Your task to perform on an android device: Show me productivity apps on the Play Store Image 0: 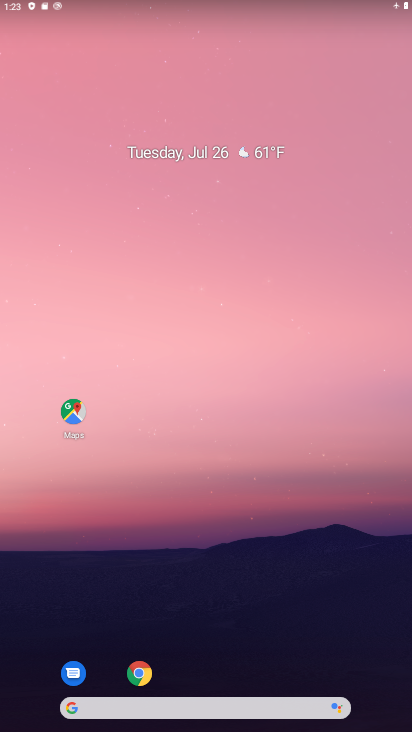
Step 0: drag from (200, 673) to (237, 396)
Your task to perform on an android device: Show me productivity apps on the Play Store Image 1: 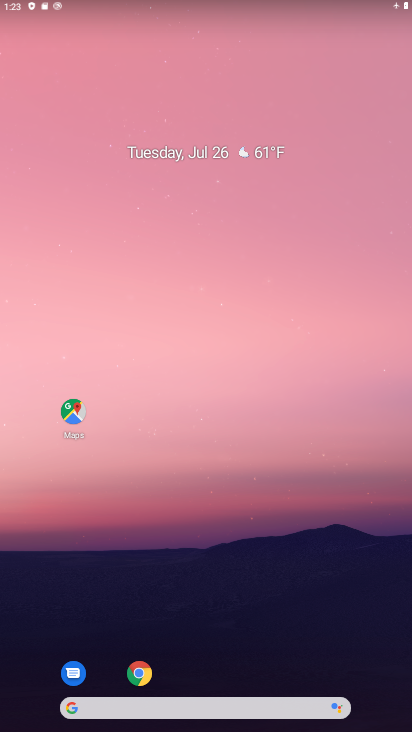
Step 1: drag from (194, 666) to (265, 322)
Your task to perform on an android device: Show me productivity apps on the Play Store Image 2: 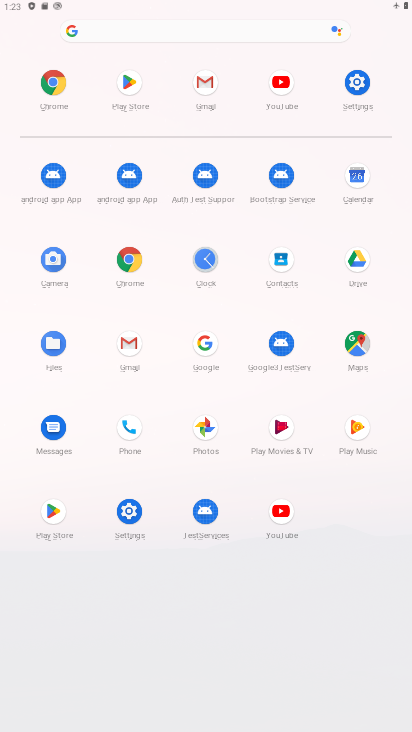
Step 2: click (53, 508)
Your task to perform on an android device: Show me productivity apps on the Play Store Image 3: 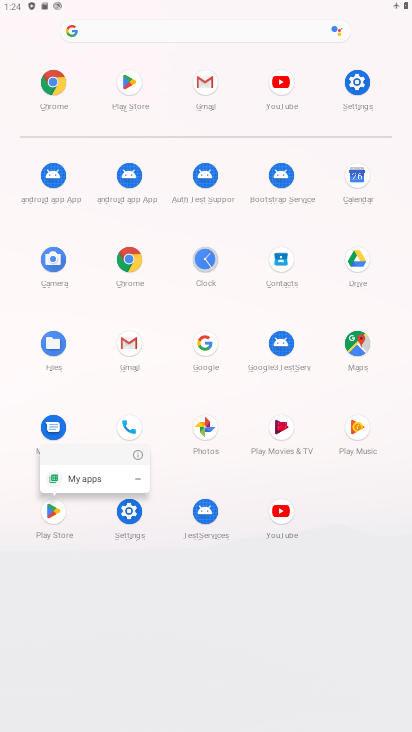
Step 3: click (129, 452)
Your task to perform on an android device: Show me productivity apps on the Play Store Image 4: 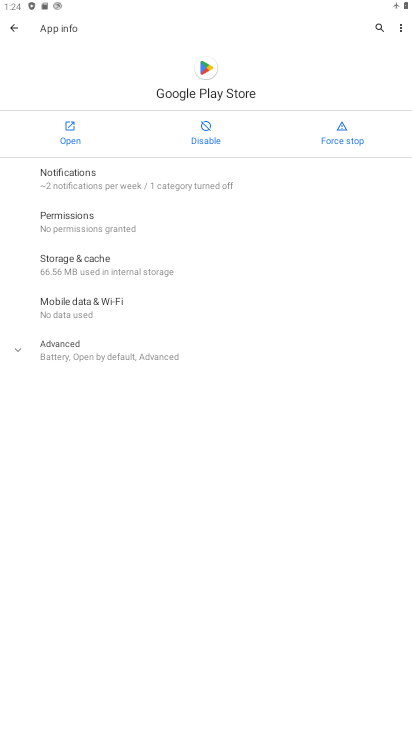
Step 4: click (70, 139)
Your task to perform on an android device: Show me productivity apps on the Play Store Image 5: 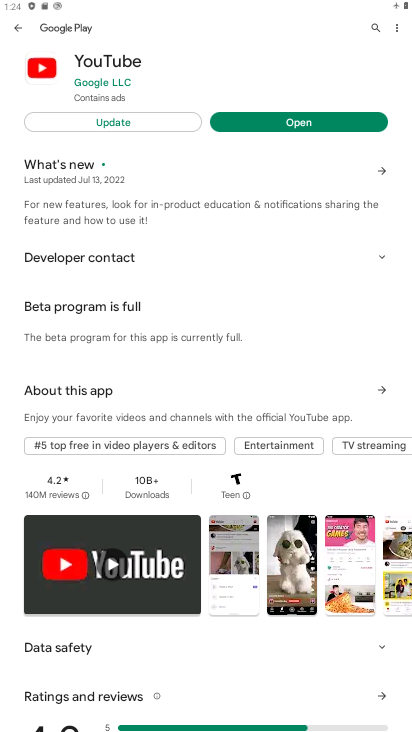
Step 5: click (19, 27)
Your task to perform on an android device: Show me productivity apps on the Play Store Image 6: 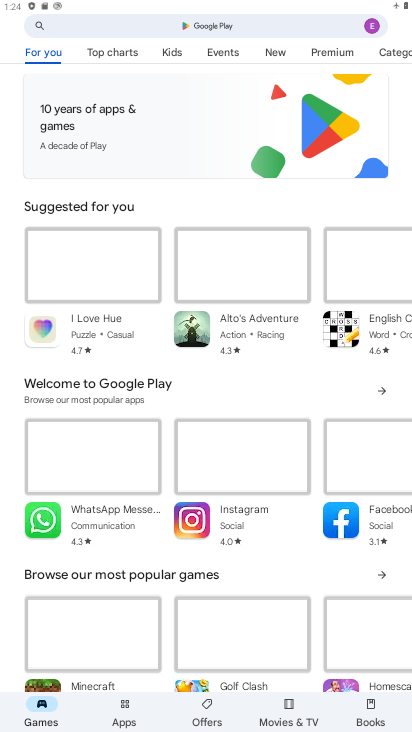
Step 6: task complete